Your task to perform on an android device: Go to Maps Image 0: 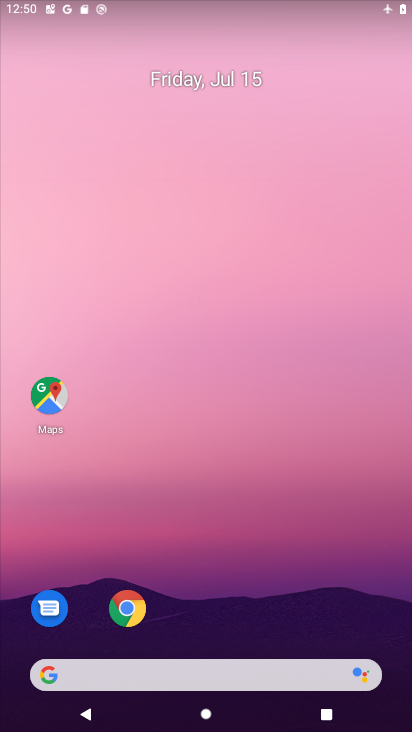
Step 0: click (56, 393)
Your task to perform on an android device: Go to Maps Image 1: 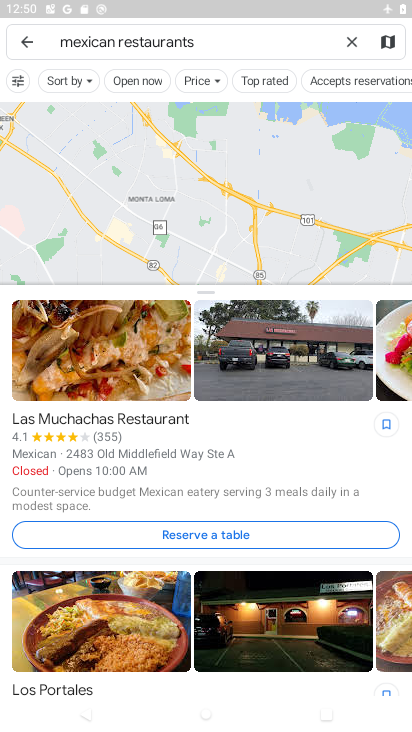
Step 1: task complete